Your task to perform on an android device: toggle priority inbox in the gmail app Image 0: 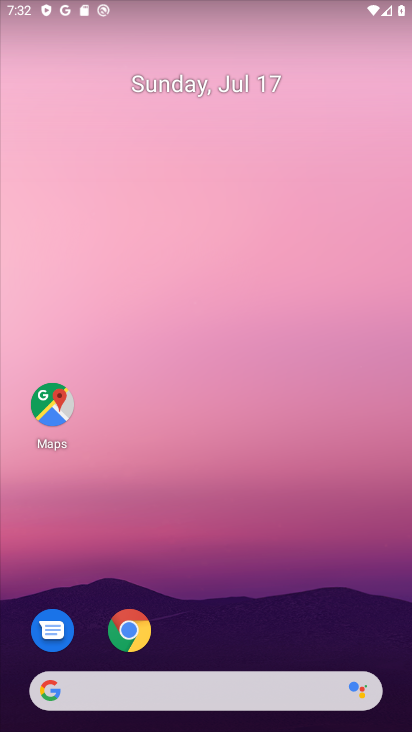
Step 0: drag from (234, 621) to (234, 373)
Your task to perform on an android device: toggle priority inbox in the gmail app Image 1: 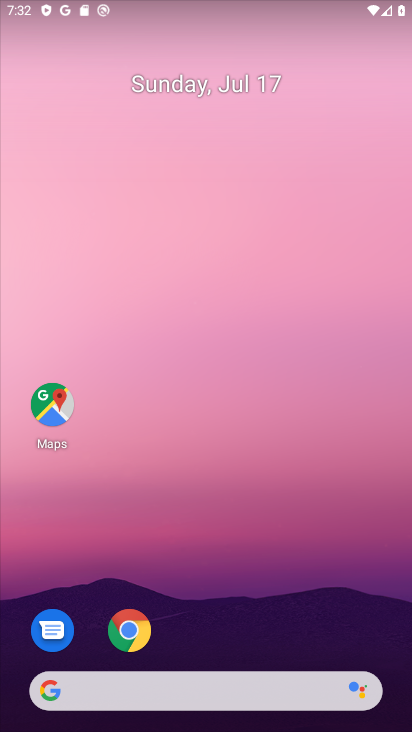
Step 1: drag from (187, 475) to (202, 0)
Your task to perform on an android device: toggle priority inbox in the gmail app Image 2: 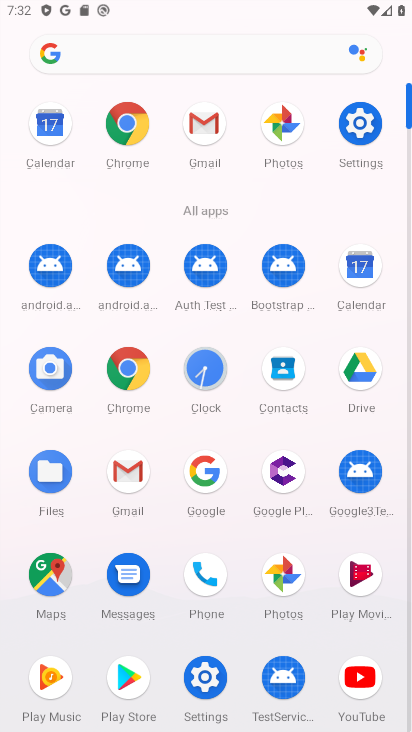
Step 2: click (207, 162)
Your task to perform on an android device: toggle priority inbox in the gmail app Image 3: 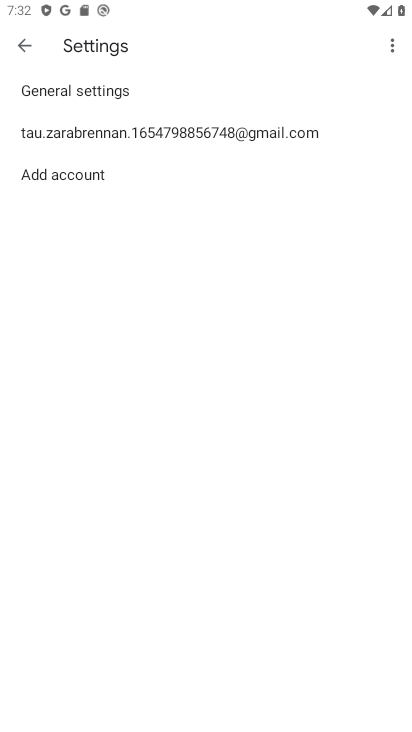
Step 3: click (153, 126)
Your task to perform on an android device: toggle priority inbox in the gmail app Image 4: 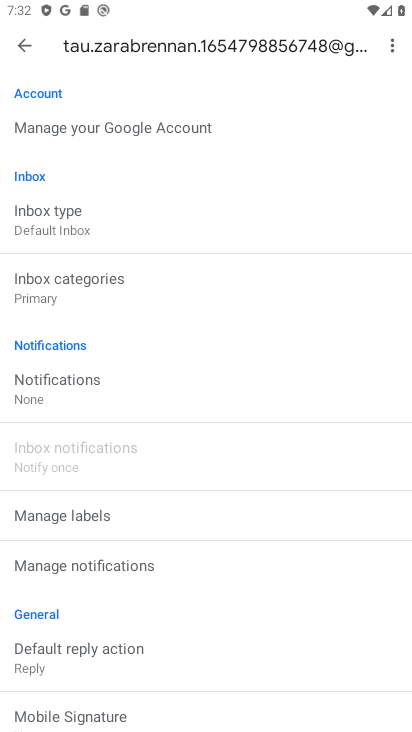
Step 4: click (69, 216)
Your task to perform on an android device: toggle priority inbox in the gmail app Image 5: 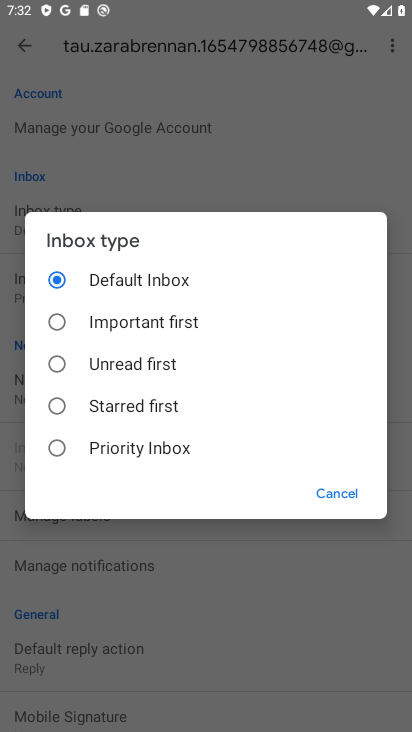
Step 5: click (57, 444)
Your task to perform on an android device: toggle priority inbox in the gmail app Image 6: 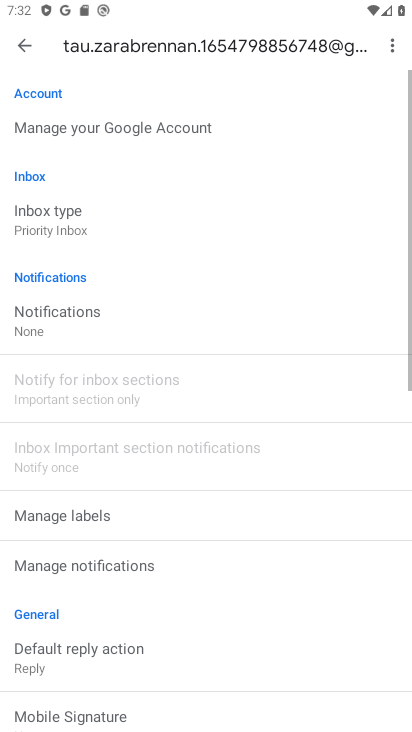
Step 6: task complete